Your task to perform on an android device: search for starred emails in the gmail app Image 0: 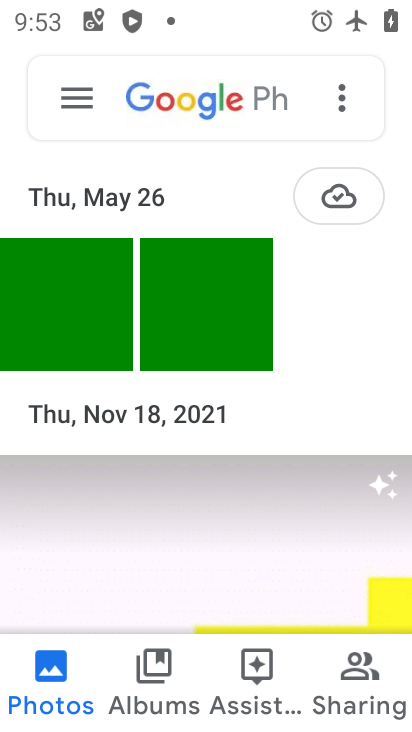
Step 0: press home button
Your task to perform on an android device: search for starred emails in the gmail app Image 1: 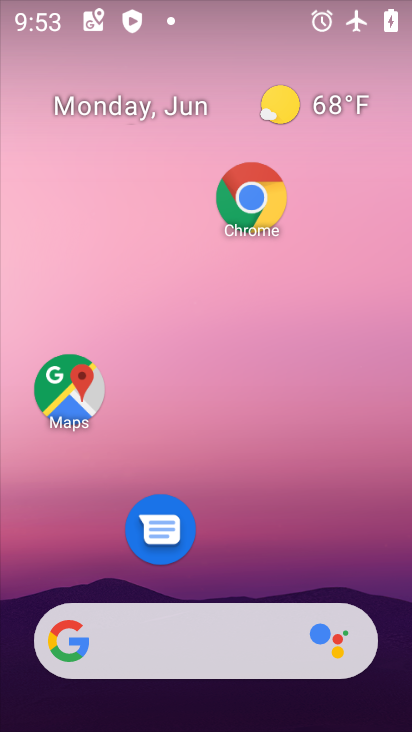
Step 1: drag from (201, 540) to (212, 171)
Your task to perform on an android device: search for starred emails in the gmail app Image 2: 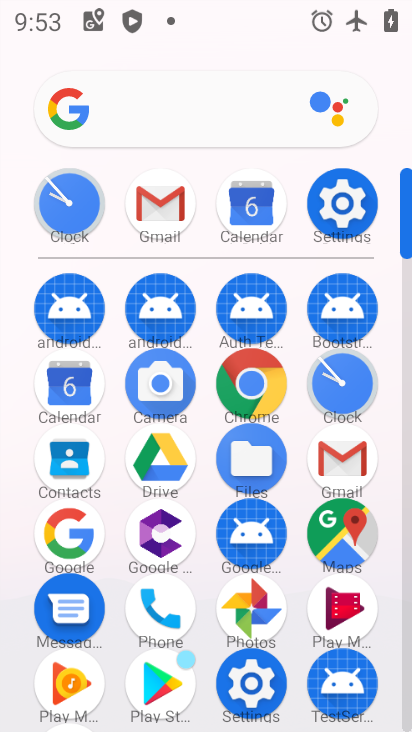
Step 2: click (158, 209)
Your task to perform on an android device: search for starred emails in the gmail app Image 3: 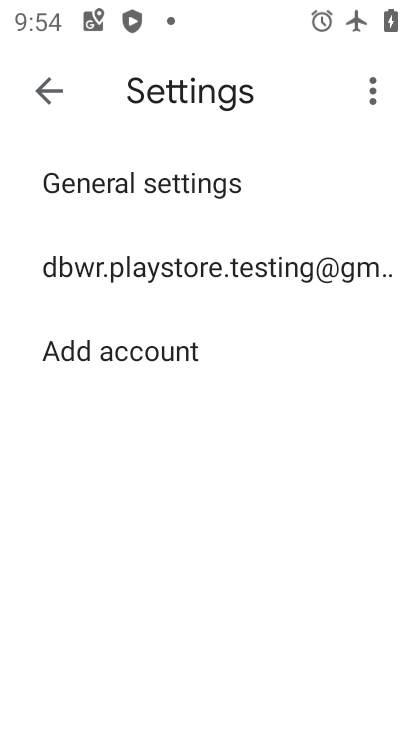
Step 3: click (33, 90)
Your task to perform on an android device: search for starred emails in the gmail app Image 4: 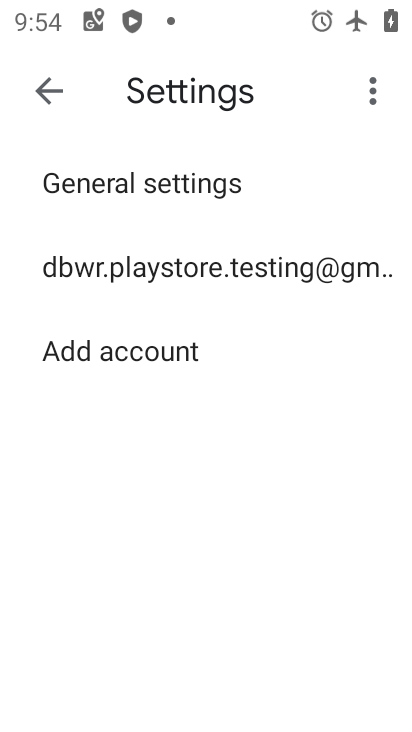
Step 4: click (44, 82)
Your task to perform on an android device: search for starred emails in the gmail app Image 5: 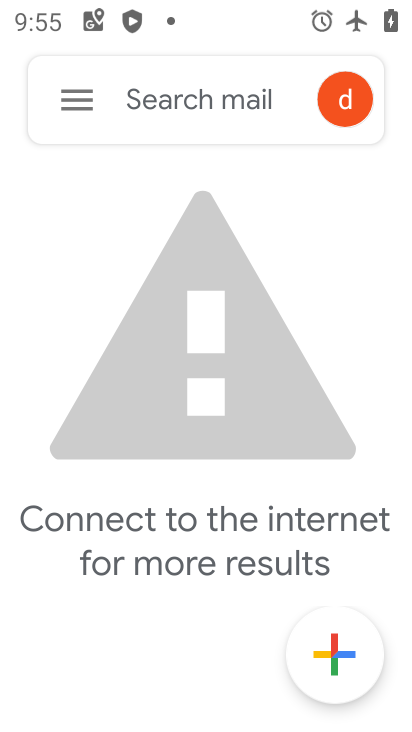
Step 5: click (67, 122)
Your task to perform on an android device: search for starred emails in the gmail app Image 6: 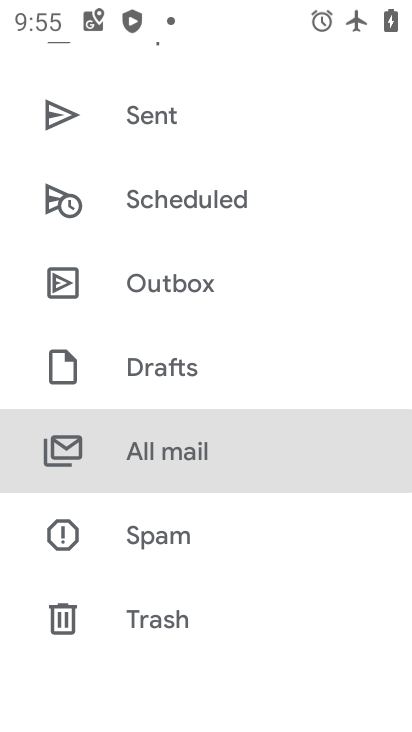
Step 6: drag from (164, 192) to (192, 397)
Your task to perform on an android device: search for starred emails in the gmail app Image 7: 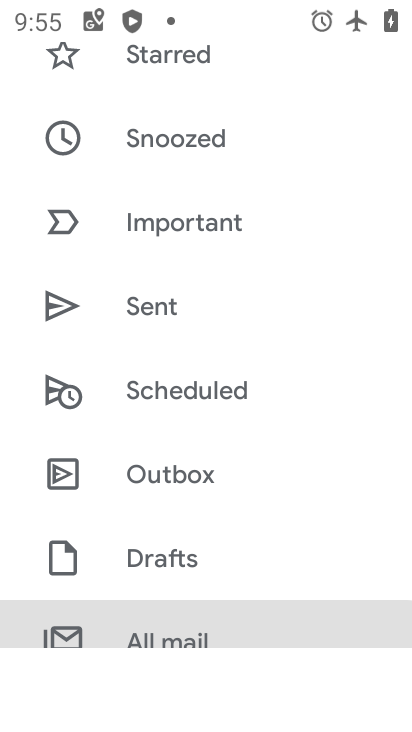
Step 7: drag from (215, 209) to (250, 494)
Your task to perform on an android device: search for starred emails in the gmail app Image 8: 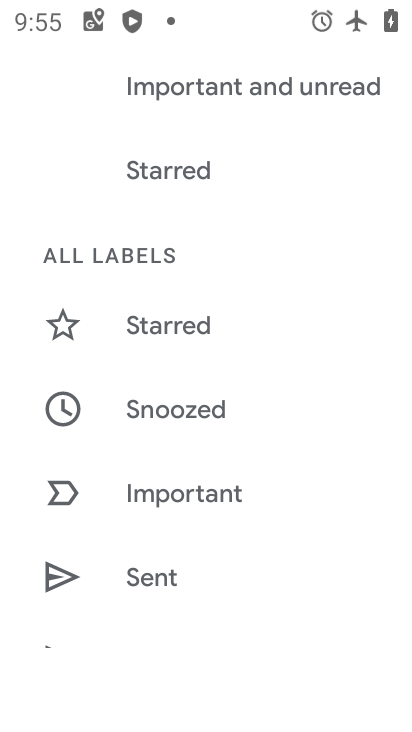
Step 8: drag from (218, 244) to (280, 325)
Your task to perform on an android device: search for starred emails in the gmail app Image 9: 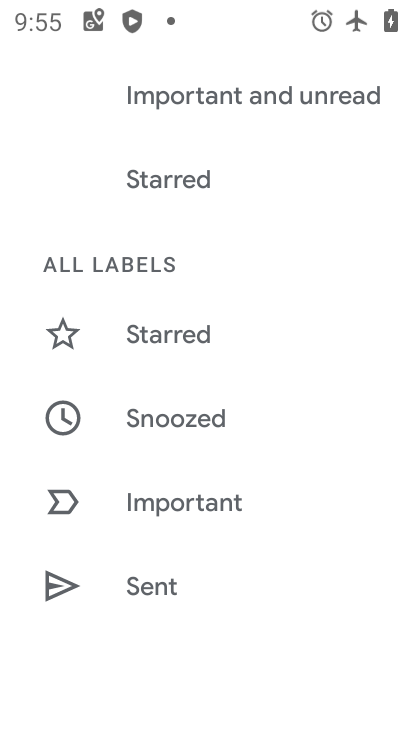
Step 9: click (216, 328)
Your task to perform on an android device: search for starred emails in the gmail app Image 10: 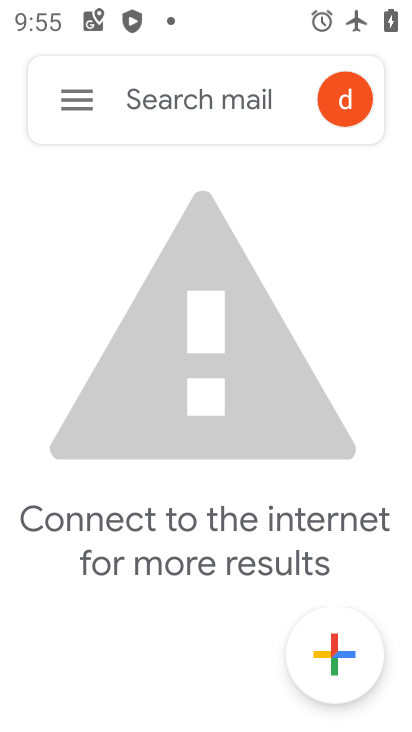
Step 10: click (70, 111)
Your task to perform on an android device: search for starred emails in the gmail app Image 11: 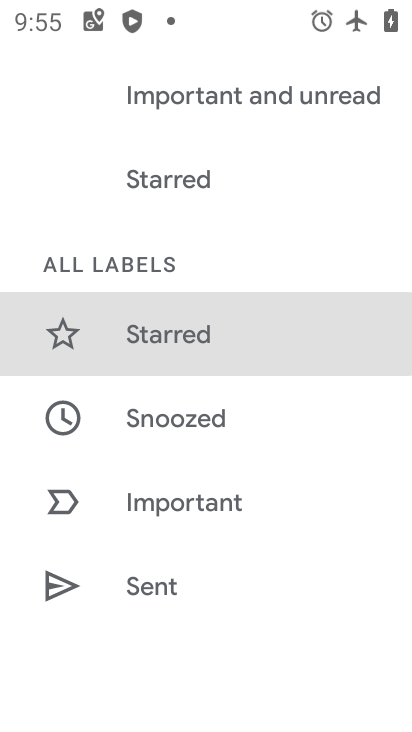
Step 11: drag from (214, 239) to (245, 499)
Your task to perform on an android device: search for starred emails in the gmail app Image 12: 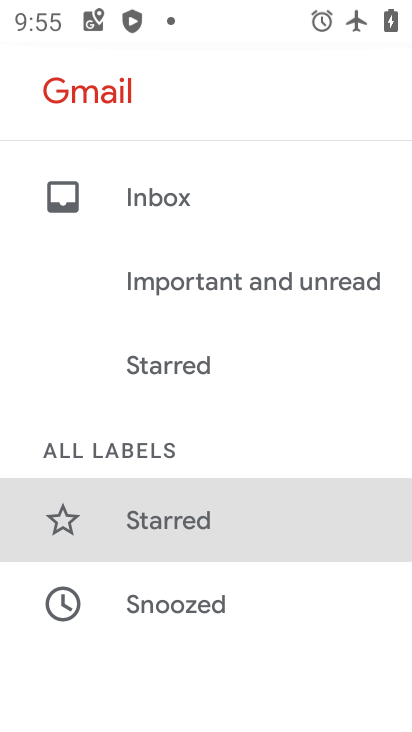
Step 12: click (218, 519)
Your task to perform on an android device: search for starred emails in the gmail app Image 13: 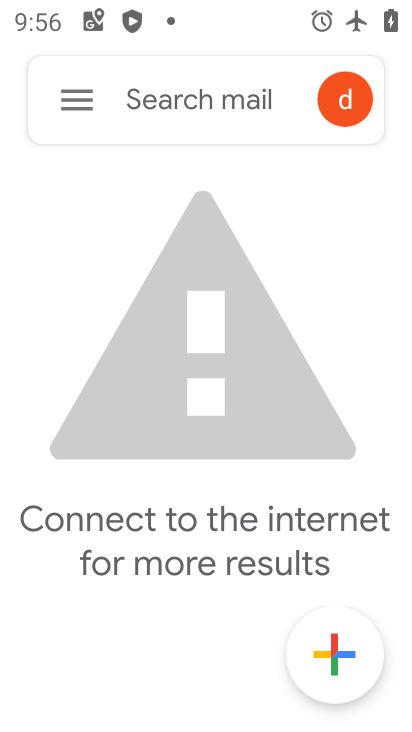
Step 13: task complete